Your task to perform on an android device: Search for vegetarian restaurants on Maps Image 0: 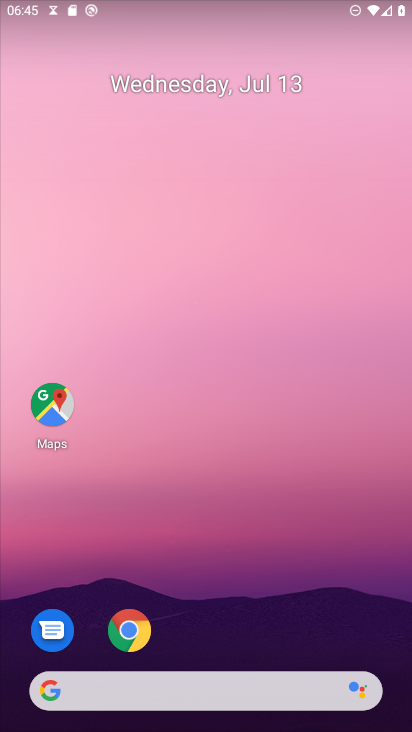
Step 0: drag from (303, 686) to (306, 2)
Your task to perform on an android device: Search for vegetarian restaurants on Maps Image 1: 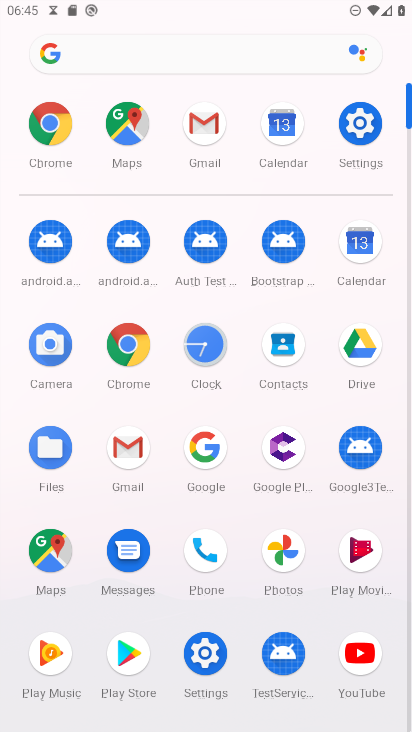
Step 1: click (36, 548)
Your task to perform on an android device: Search for vegetarian restaurants on Maps Image 2: 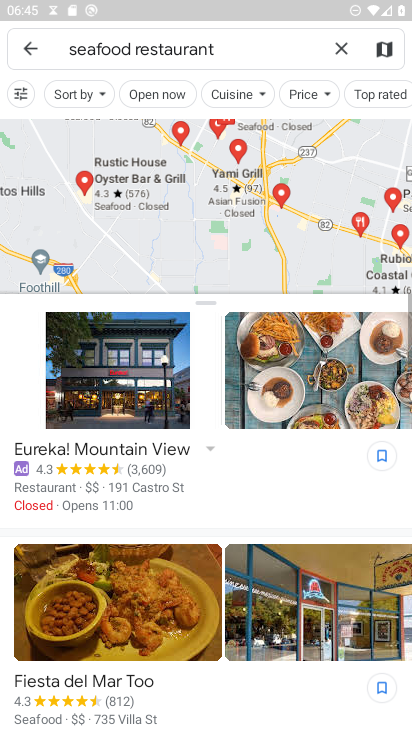
Step 2: press back button
Your task to perform on an android device: Search for vegetarian restaurants on Maps Image 3: 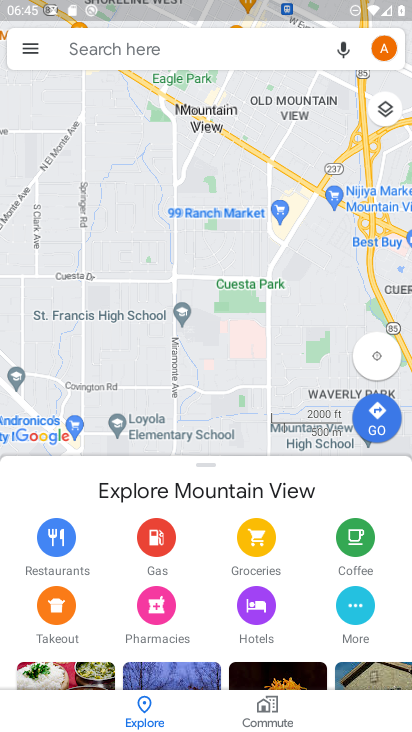
Step 3: click (121, 48)
Your task to perform on an android device: Search for vegetarian restaurants on Maps Image 4: 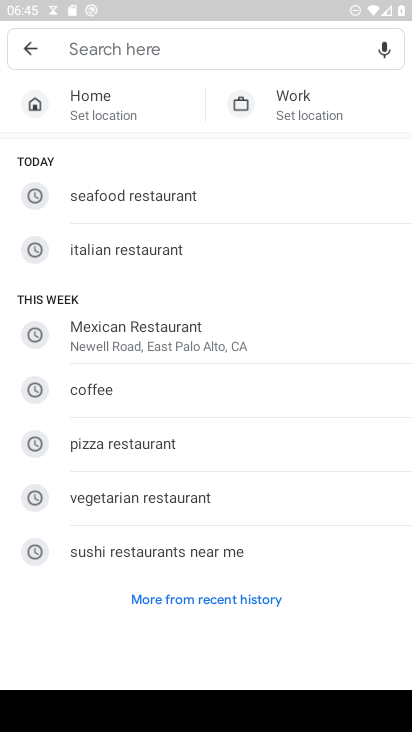
Step 4: click (179, 554)
Your task to perform on an android device: Search for vegetarian restaurants on Maps Image 5: 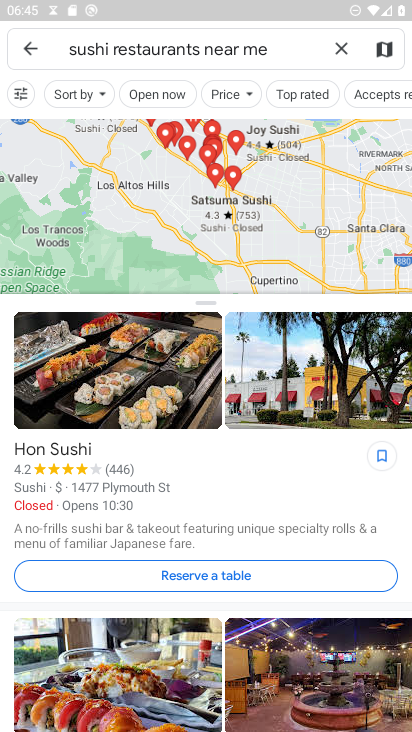
Step 5: click (336, 48)
Your task to perform on an android device: Search for vegetarian restaurants on Maps Image 6: 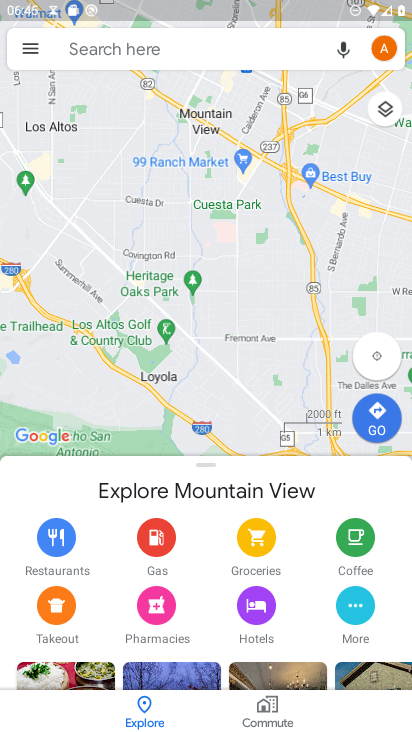
Step 6: click (220, 51)
Your task to perform on an android device: Search for vegetarian restaurants on Maps Image 7: 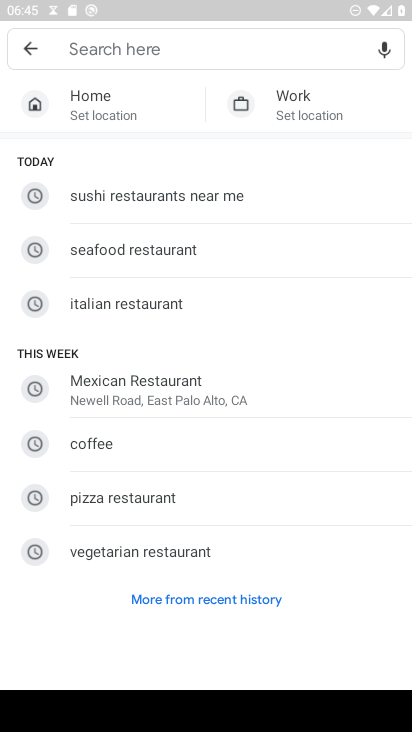
Step 7: click (177, 544)
Your task to perform on an android device: Search for vegetarian restaurants on Maps Image 8: 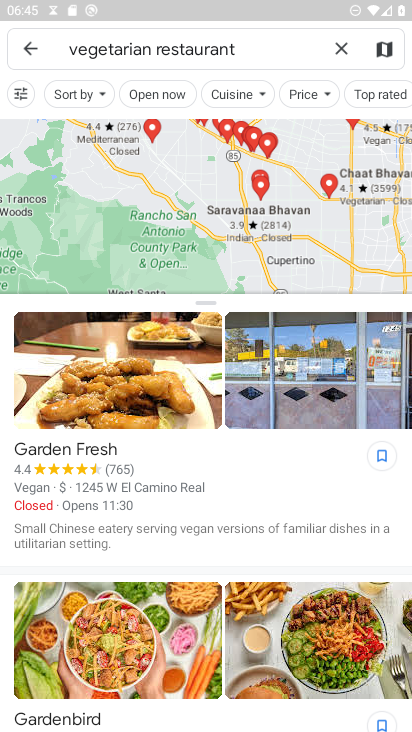
Step 8: task complete